Your task to perform on an android device: turn on the 12-hour format for clock Image 0: 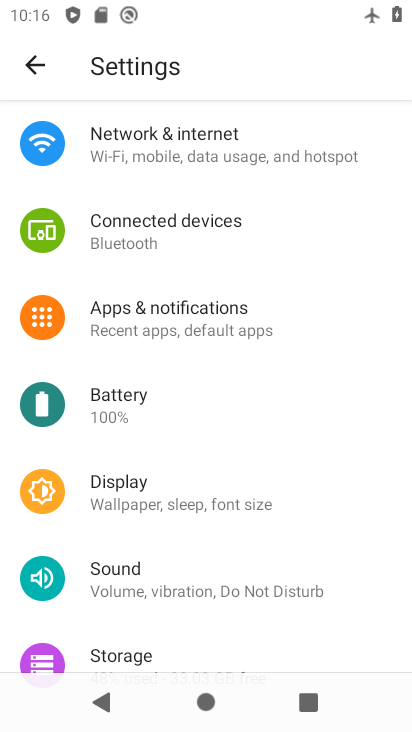
Step 0: press back button
Your task to perform on an android device: turn on the 12-hour format for clock Image 1: 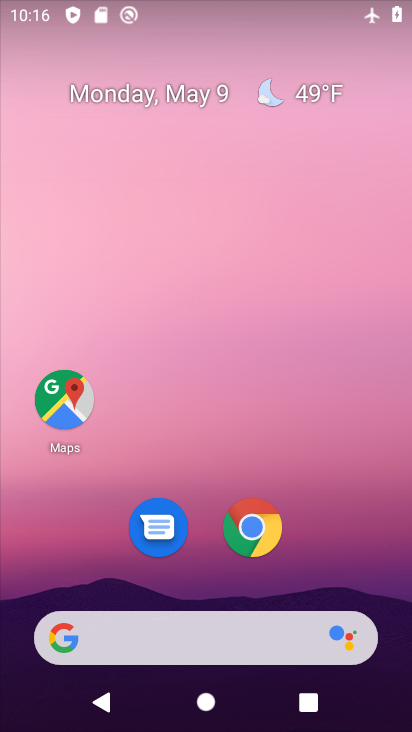
Step 1: drag from (348, 537) to (252, 40)
Your task to perform on an android device: turn on the 12-hour format for clock Image 2: 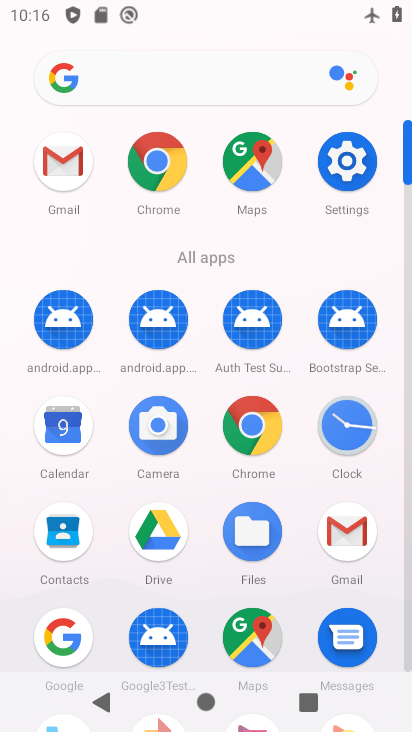
Step 2: click (347, 427)
Your task to perform on an android device: turn on the 12-hour format for clock Image 3: 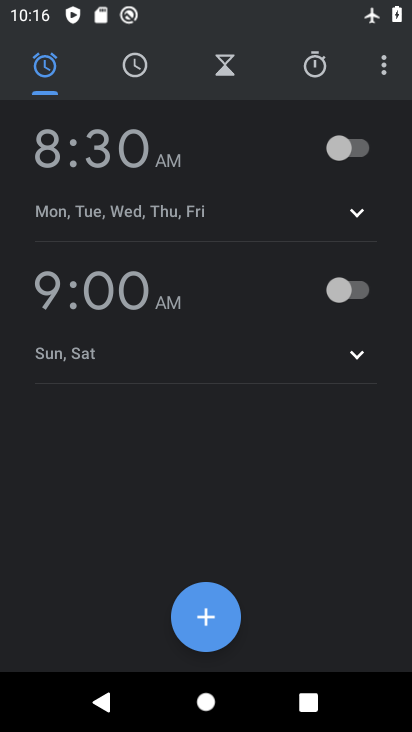
Step 3: click (387, 67)
Your task to perform on an android device: turn on the 12-hour format for clock Image 4: 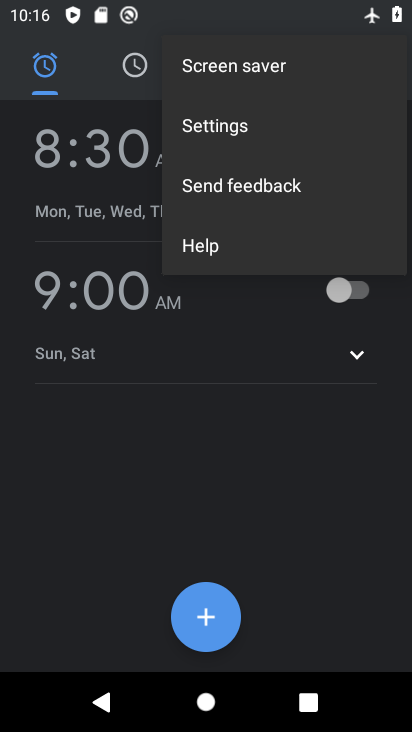
Step 4: click (237, 128)
Your task to perform on an android device: turn on the 12-hour format for clock Image 5: 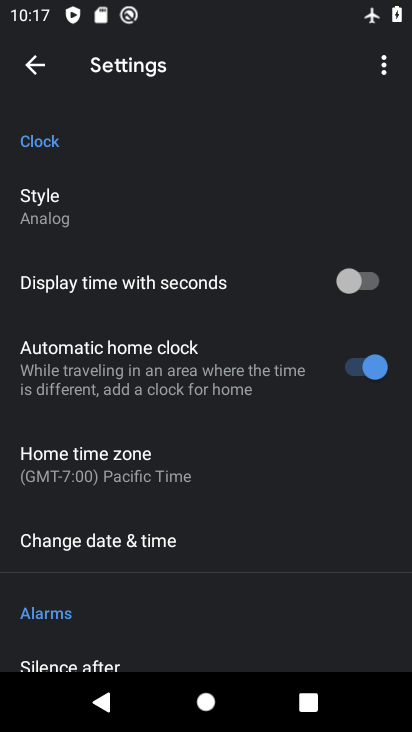
Step 5: drag from (194, 481) to (220, 333)
Your task to perform on an android device: turn on the 12-hour format for clock Image 6: 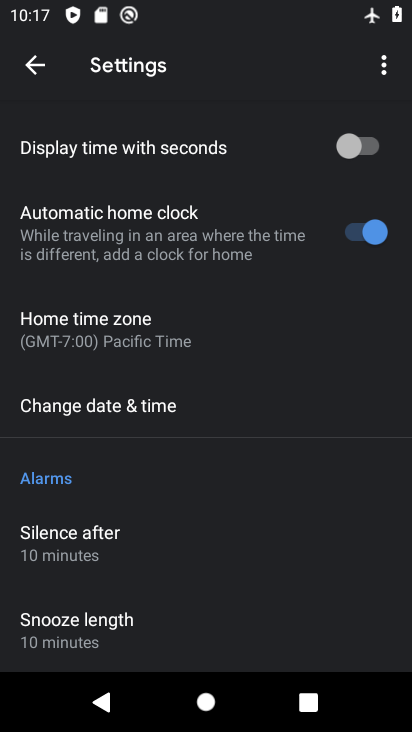
Step 6: click (130, 408)
Your task to perform on an android device: turn on the 12-hour format for clock Image 7: 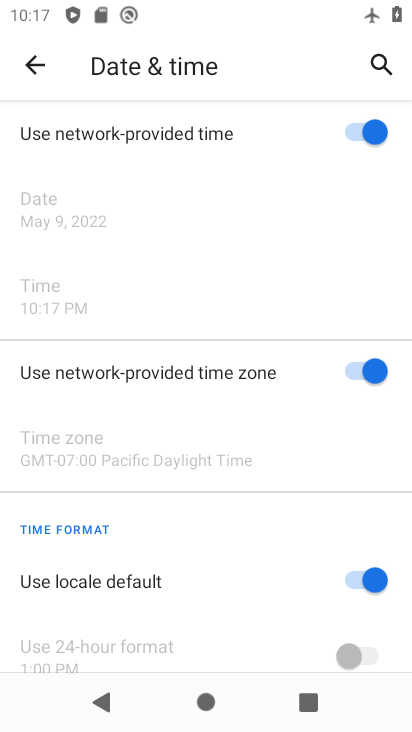
Step 7: task complete